Your task to perform on an android device: turn off picture-in-picture Image 0: 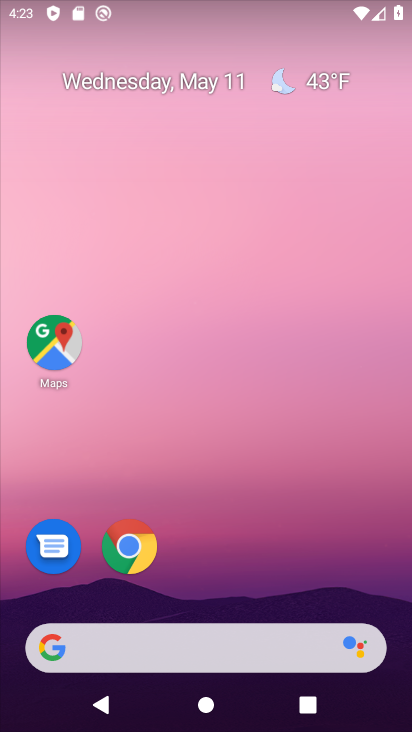
Step 0: click (124, 544)
Your task to perform on an android device: turn off picture-in-picture Image 1: 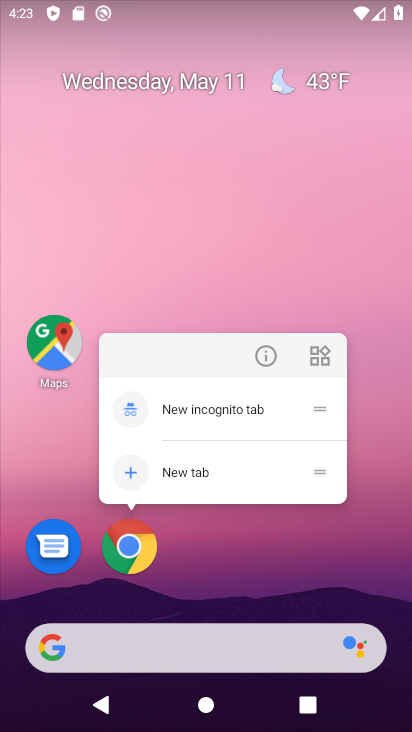
Step 1: click (259, 352)
Your task to perform on an android device: turn off picture-in-picture Image 2: 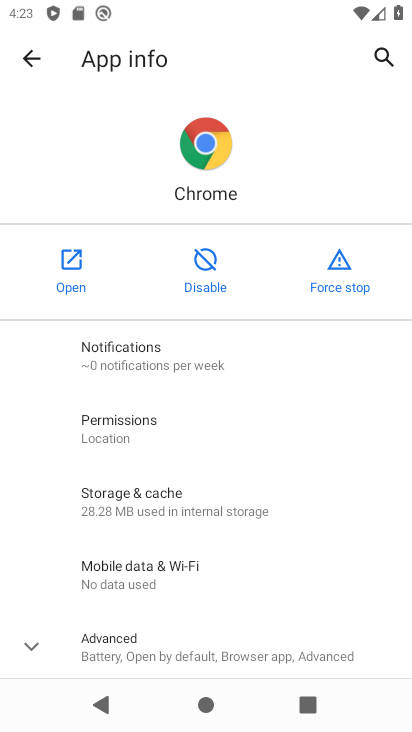
Step 2: click (135, 646)
Your task to perform on an android device: turn off picture-in-picture Image 3: 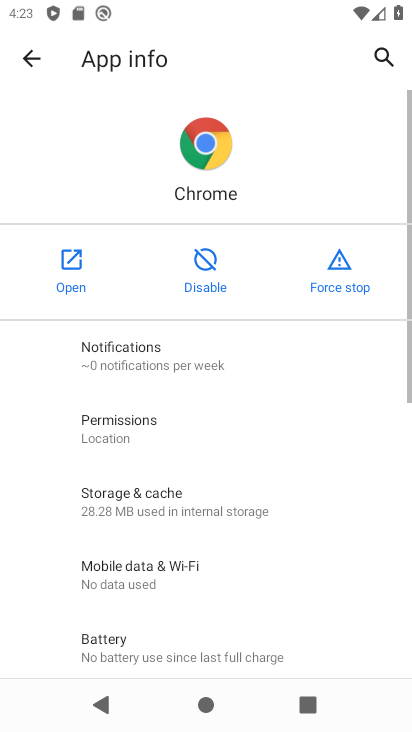
Step 3: drag from (229, 655) to (223, 247)
Your task to perform on an android device: turn off picture-in-picture Image 4: 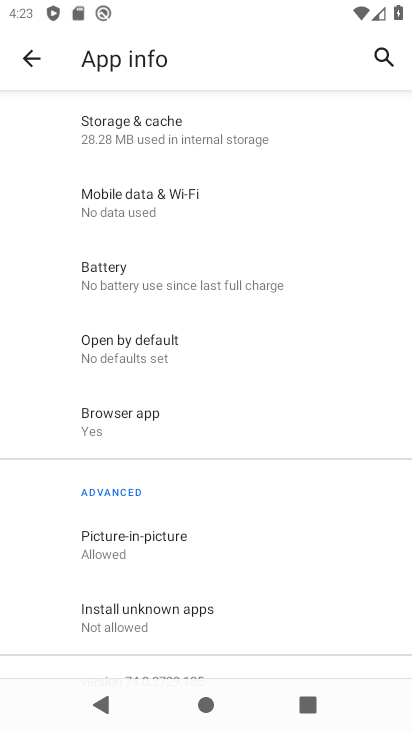
Step 4: drag from (217, 625) to (193, 242)
Your task to perform on an android device: turn off picture-in-picture Image 5: 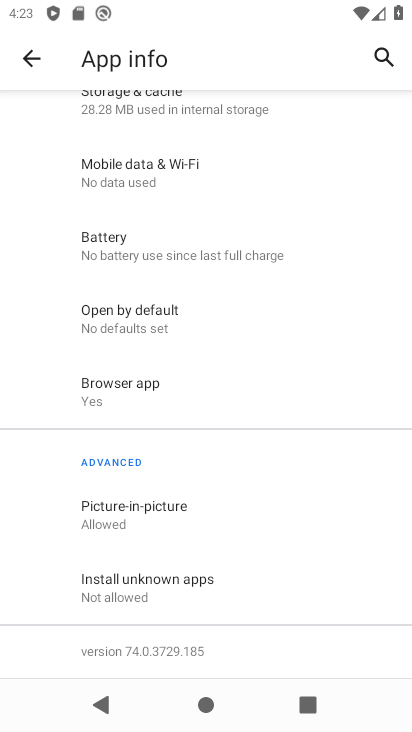
Step 5: click (130, 523)
Your task to perform on an android device: turn off picture-in-picture Image 6: 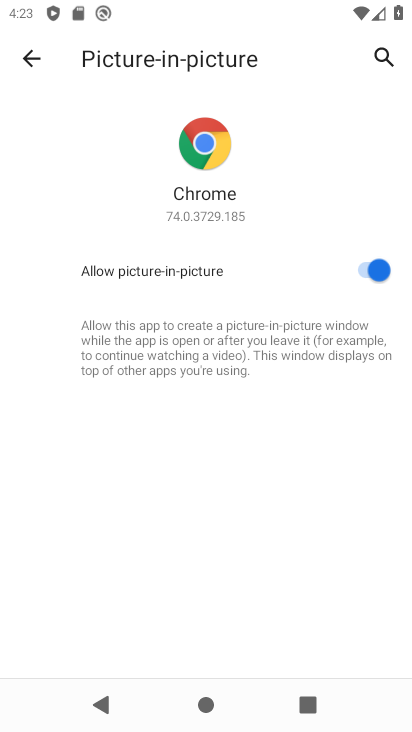
Step 6: click (361, 264)
Your task to perform on an android device: turn off picture-in-picture Image 7: 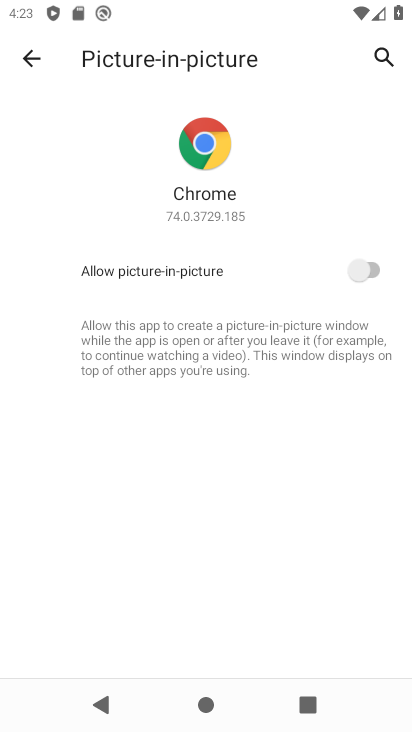
Step 7: task complete